Your task to perform on an android device: open chrome privacy settings Image 0: 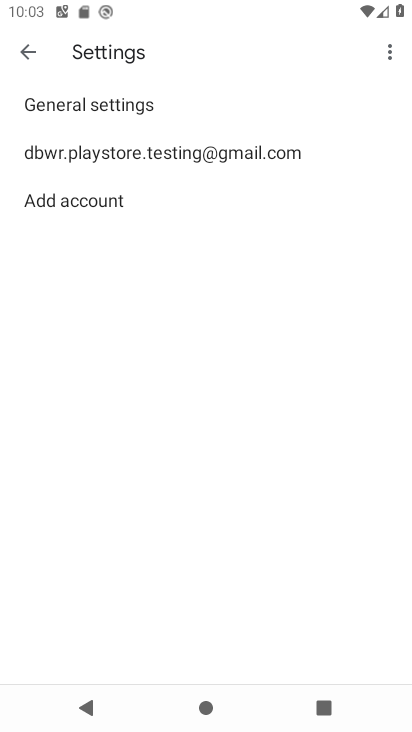
Step 0: press home button
Your task to perform on an android device: open chrome privacy settings Image 1: 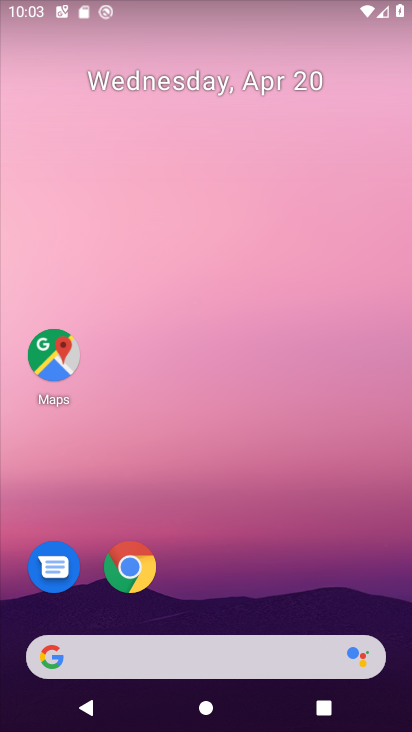
Step 1: drag from (288, 484) to (309, 119)
Your task to perform on an android device: open chrome privacy settings Image 2: 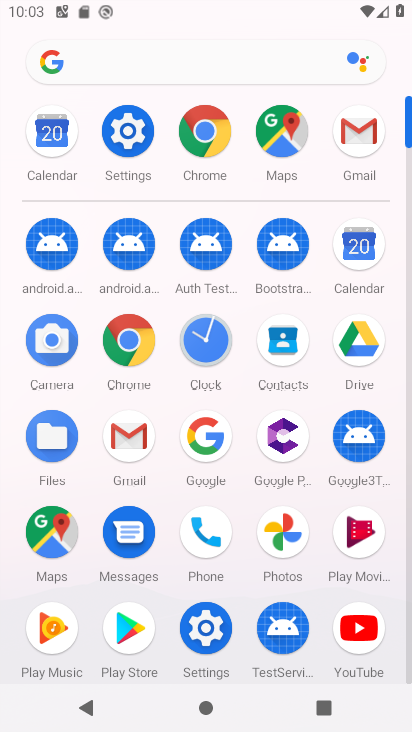
Step 2: click (131, 334)
Your task to perform on an android device: open chrome privacy settings Image 3: 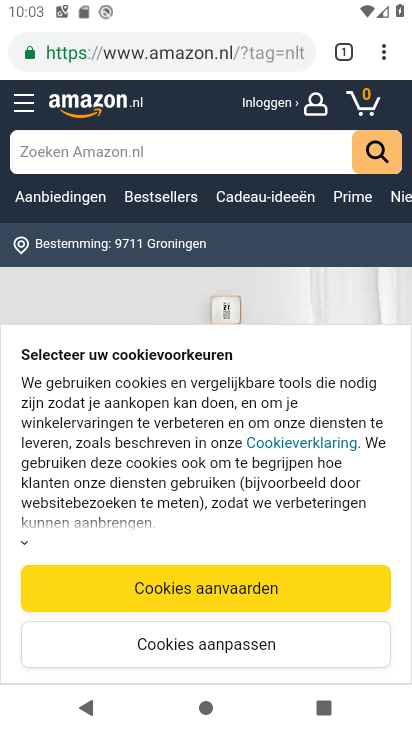
Step 3: click (384, 51)
Your task to perform on an android device: open chrome privacy settings Image 4: 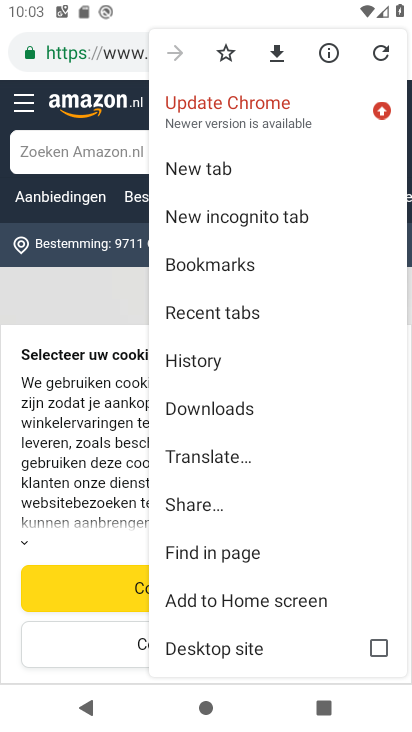
Step 4: drag from (337, 484) to (329, 343)
Your task to perform on an android device: open chrome privacy settings Image 5: 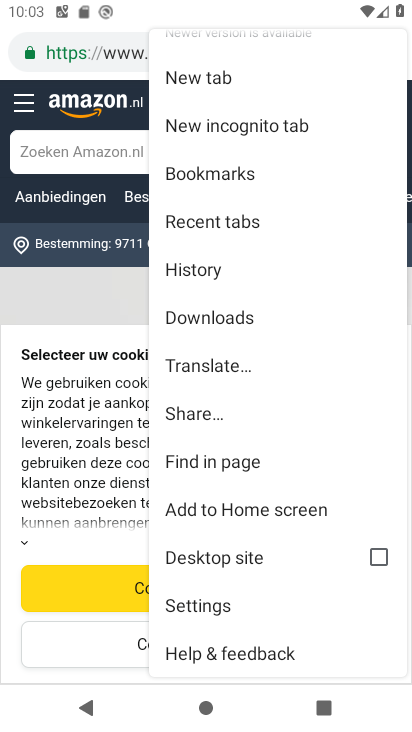
Step 5: click (243, 612)
Your task to perform on an android device: open chrome privacy settings Image 6: 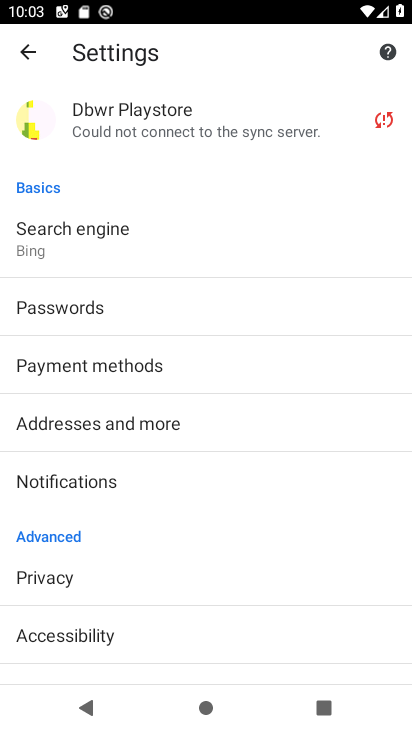
Step 6: drag from (272, 586) to (290, 445)
Your task to perform on an android device: open chrome privacy settings Image 7: 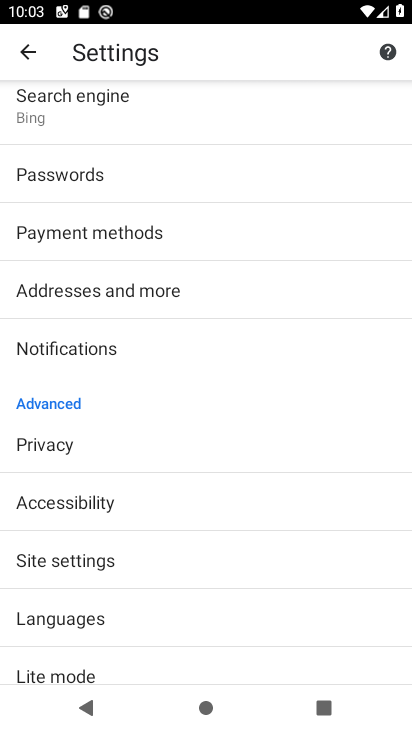
Step 7: drag from (323, 557) to (345, 370)
Your task to perform on an android device: open chrome privacy settings Image 8: 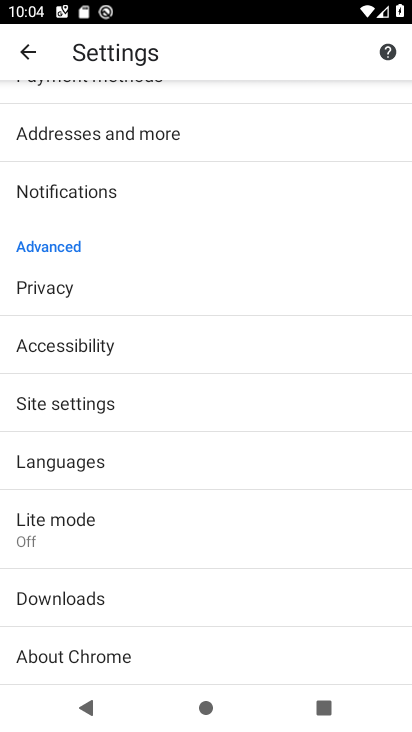
Step 8: click (153, 291)
Your task to perform on an android device: open chrome privacy settings Image 9: 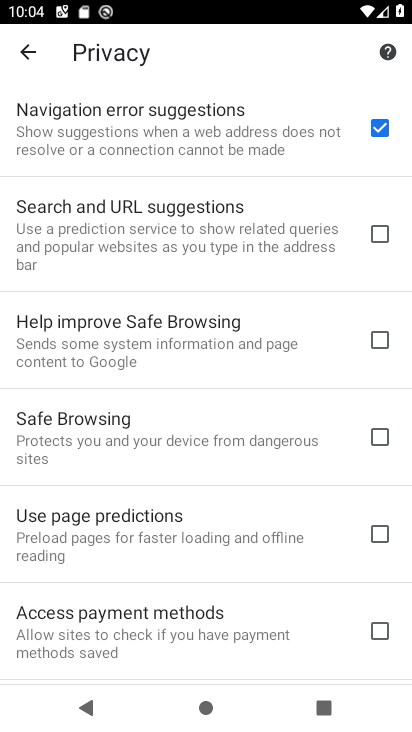
Step 9: task complete